Your task to perform on an android device: Go to Android settings Image 0: 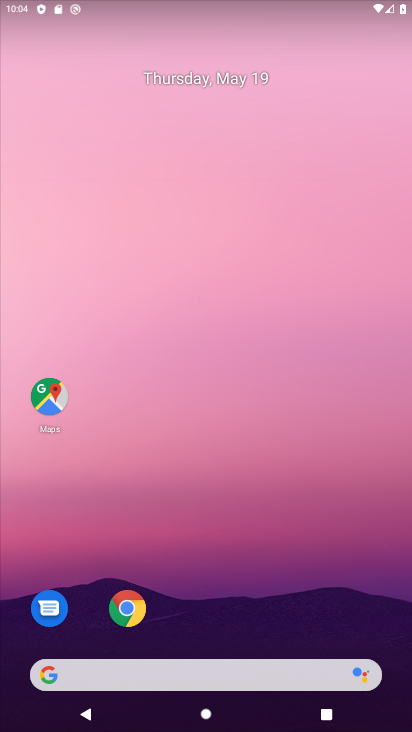
Step 0: drag from (393, 677) to (410, 187)
Your task to perform on an android device: Go to Android settings Image 1: 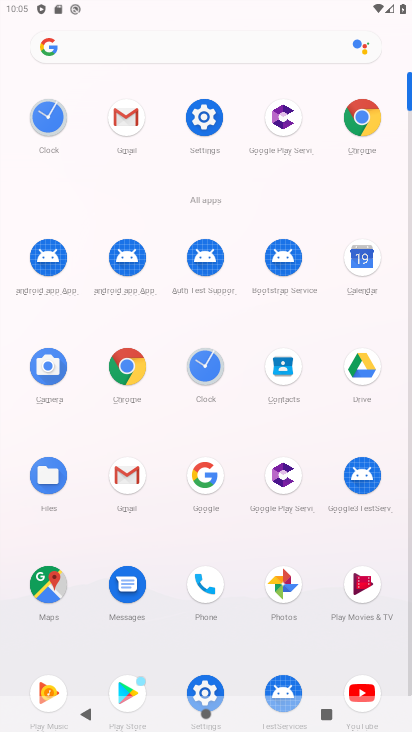
Step 1: click (214, 121)
Your task to perform on an android device: Go to Android settings Image 2: 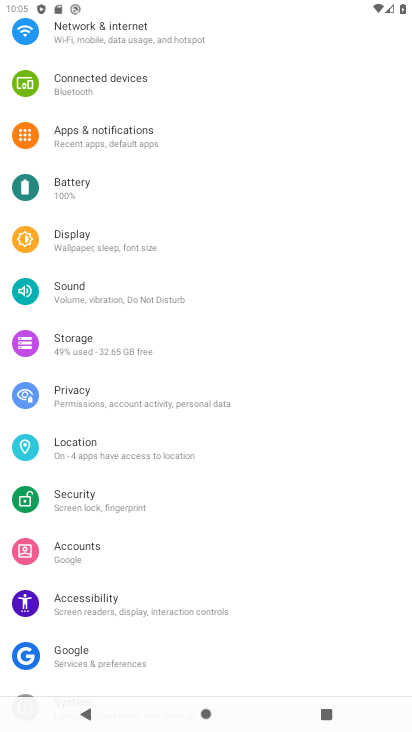
Step 2: task complete